Your task to perform on an android device: change the clock style Image 0: 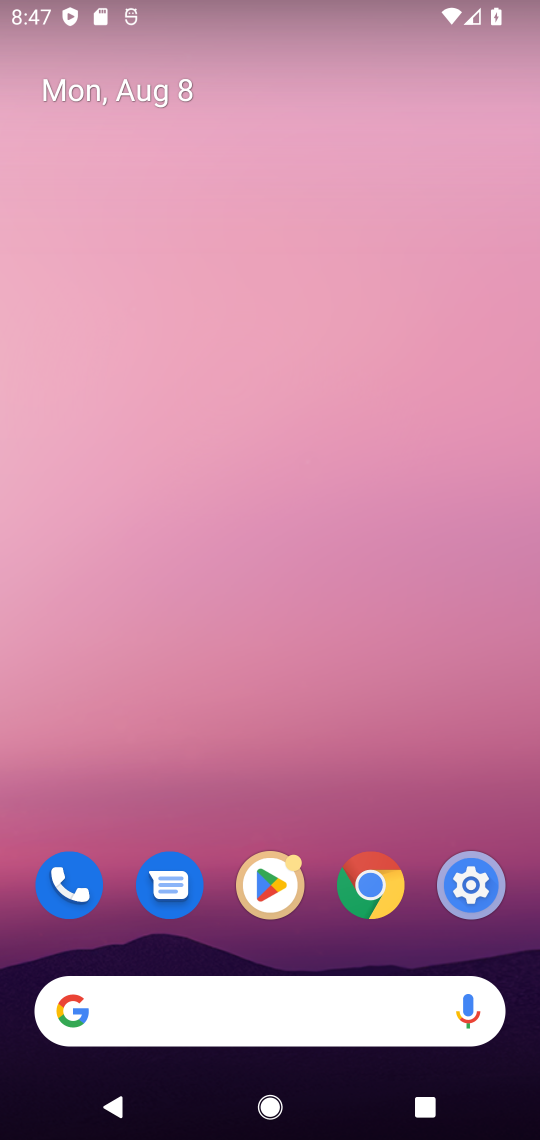
Step 0: drag from (336, 1084) to (347, 692)
Your task to perform on an android device: change the clock style Image 1: 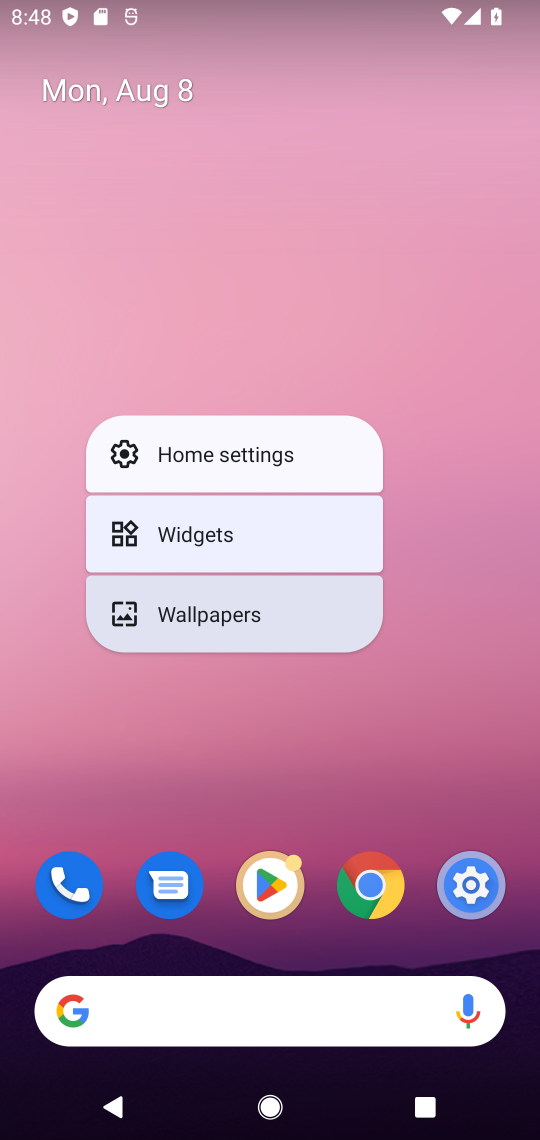
Step 1: drag from (243, 1081) to (317, 127)
Your task to perform on an android device: change the clock style Image 2: 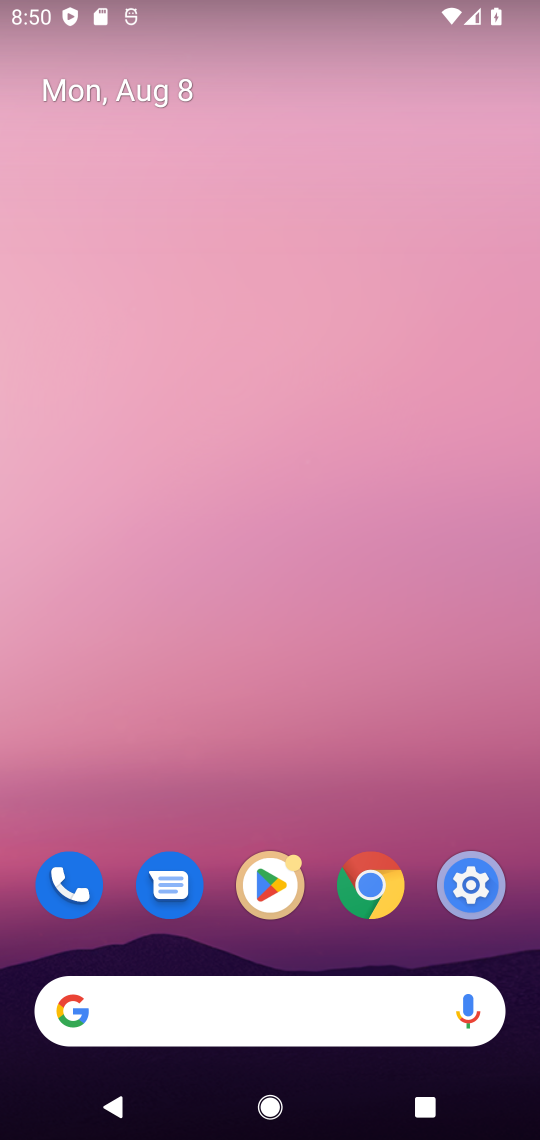
Step 2: drag from (358, 541) to (374, 230)
Your task to perform on an android device: change the clock style Image 3: 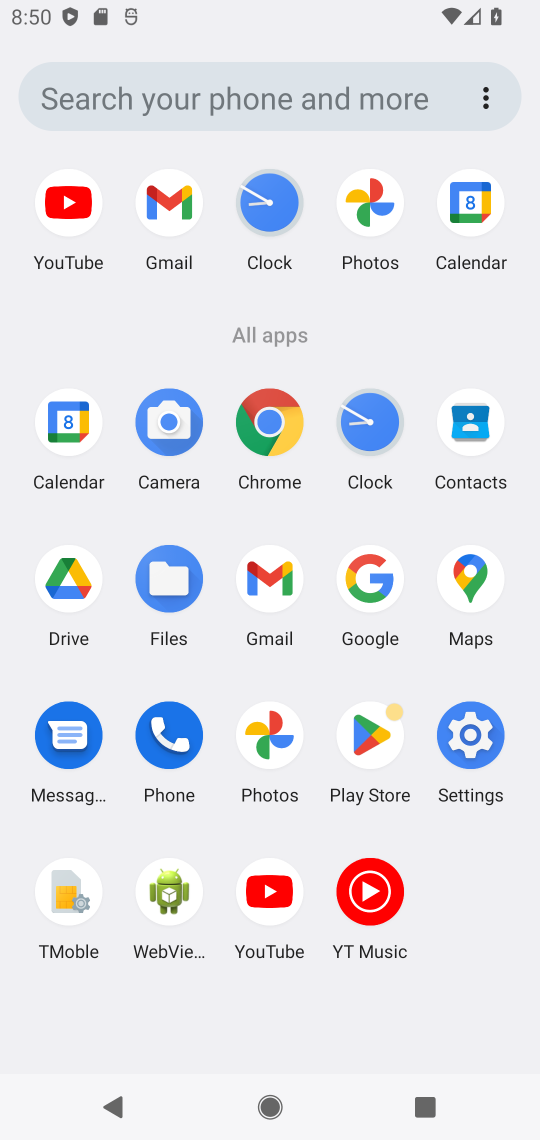
Step 3: click (359, 438)
Your task to perform on an android device: change the clock style Image 4: 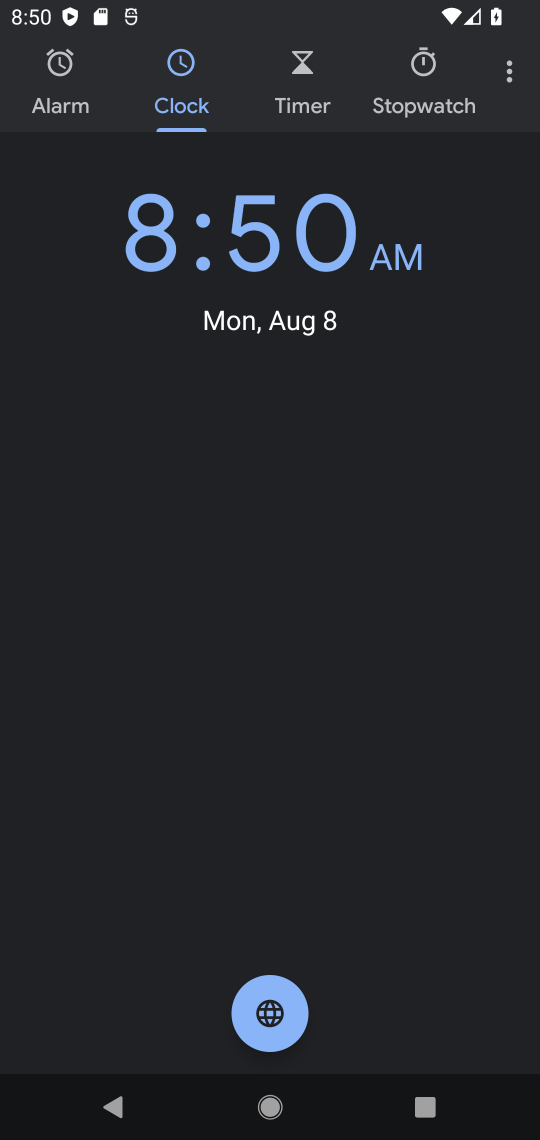
Step 4: click (517, 68)
Your task to perform on an android device: change the clock style Image 5: 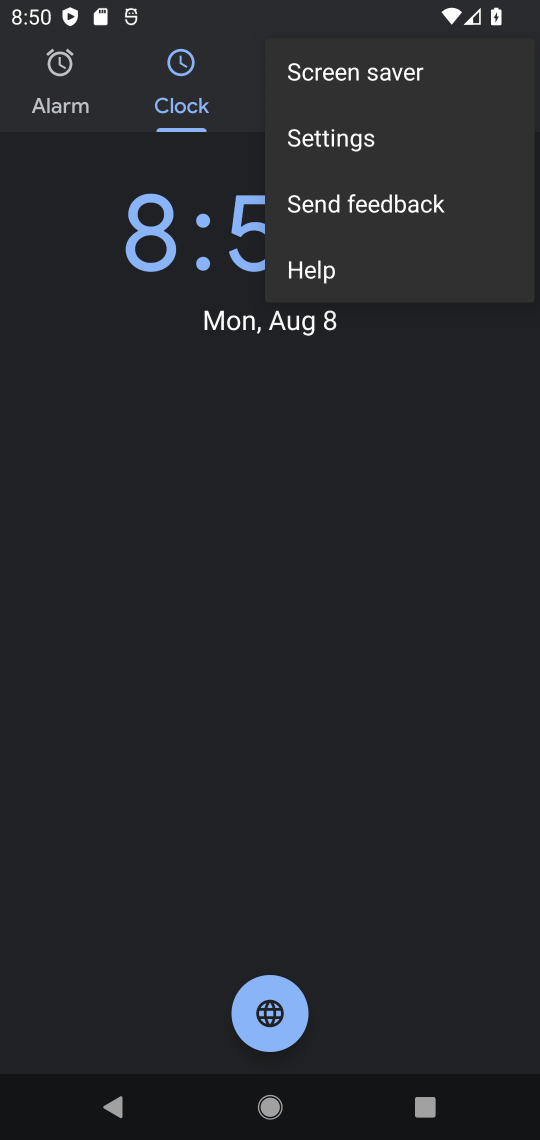
Step 5: click (432, 136)
Your task to perform on an android device: change the clock style Image 6: 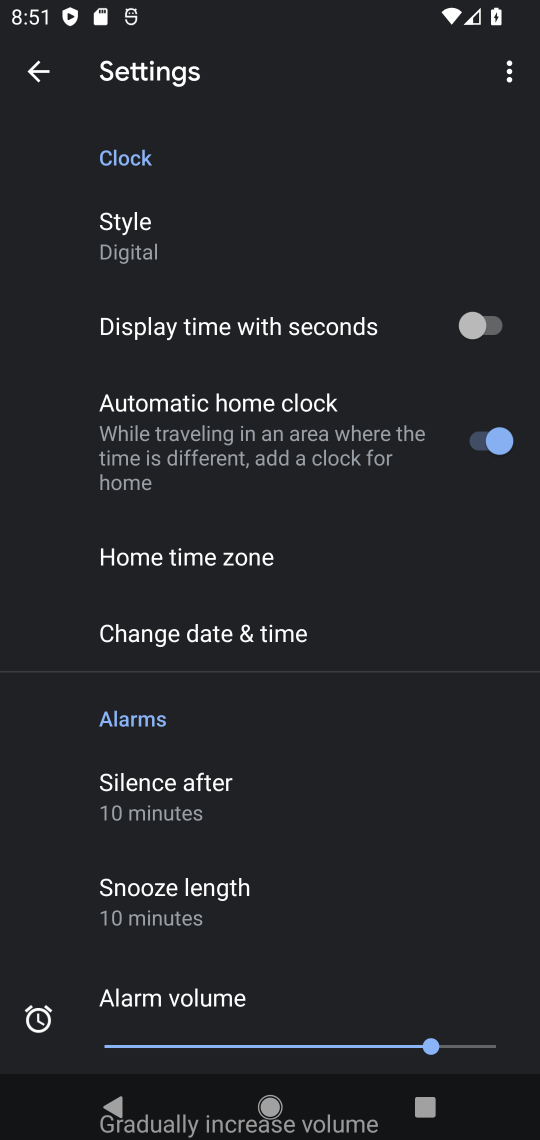
Step 6: click (171, 247)
Your task to perform on an android device: change the clock style Image 7: 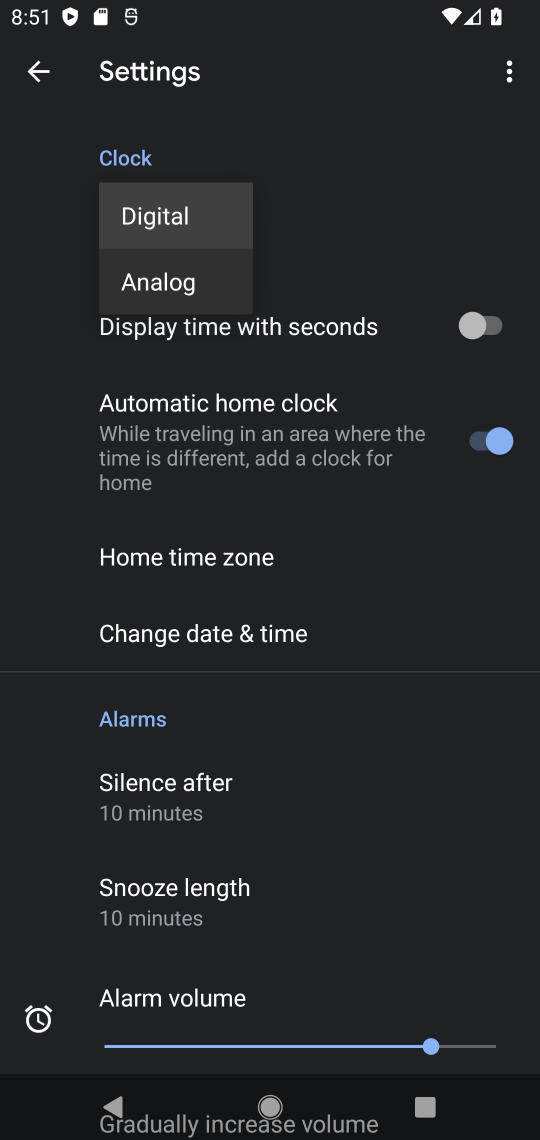
Step 7: click (197, 287)
Your task to perform on an android device: change the clock style Image 8: 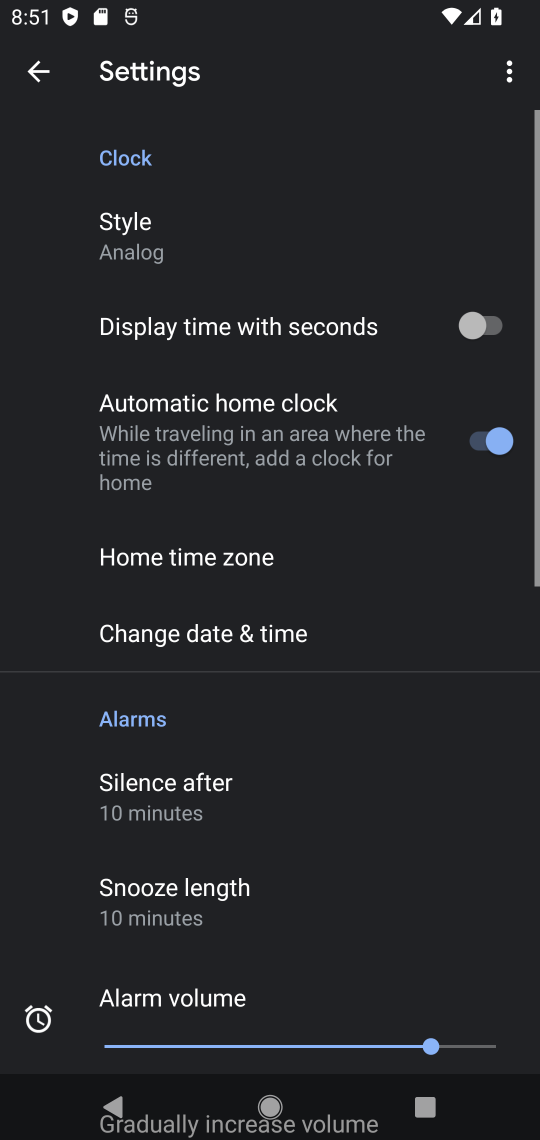
Step 8: task complete